Your task to perform on an android device: turn off data saver in the chrome app Image 0: 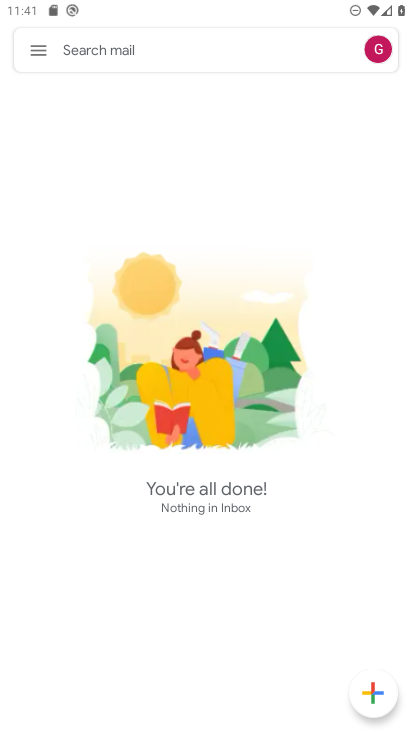
Step 0: press home button
Your task to perform on an android device: turn off data saver in the chrome app Image 1: 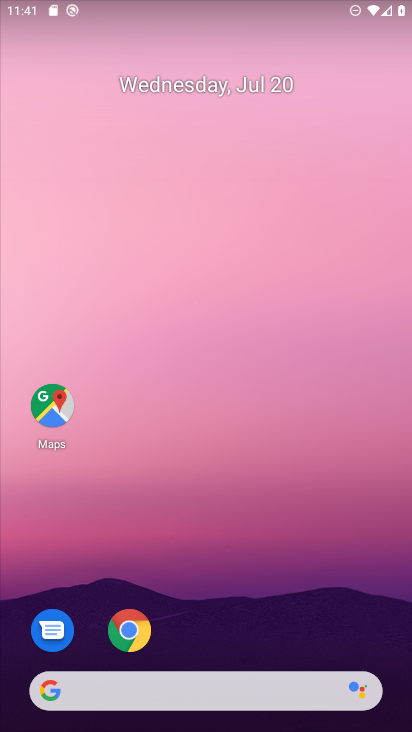
Step 1: drag from (258, 634) to (194, 105)
Your task to perform on an android device: turn off data saver in the chrome app Image 2: 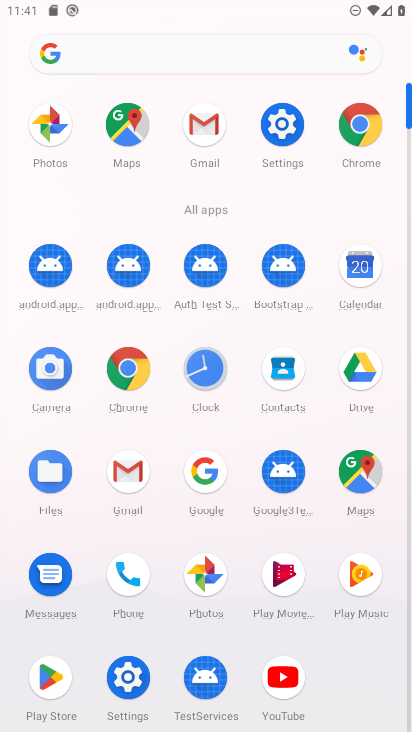
Step 2: click (129, 379)
Your task to perform on an android device: turn off data saver in the chrome app Image 3: 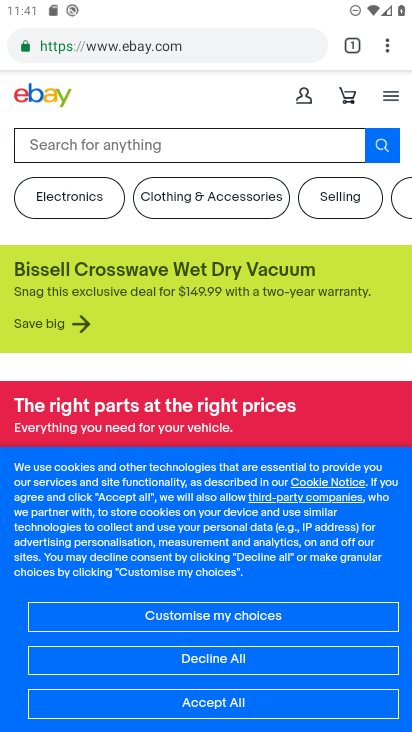
Step 3: click (385, 44)
Your task to perform on an android device: turn off data saver in the chrome app Image 4: 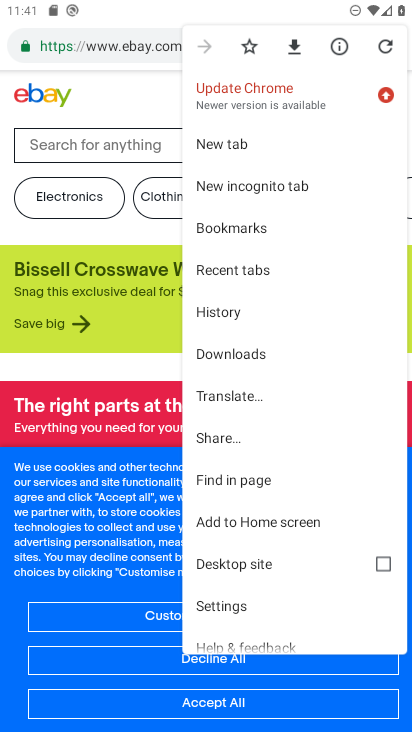
Step 4: click (222, 609)
Your task to perform on an android device: turn off data saver in the chrome app Image 5: 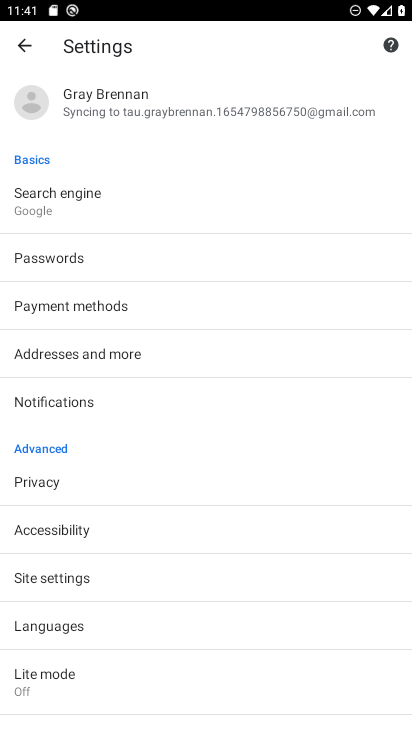
Step 5: click (62, 679)
Your task to perform on an android device: turn off data saver in the chrome app Image 6: 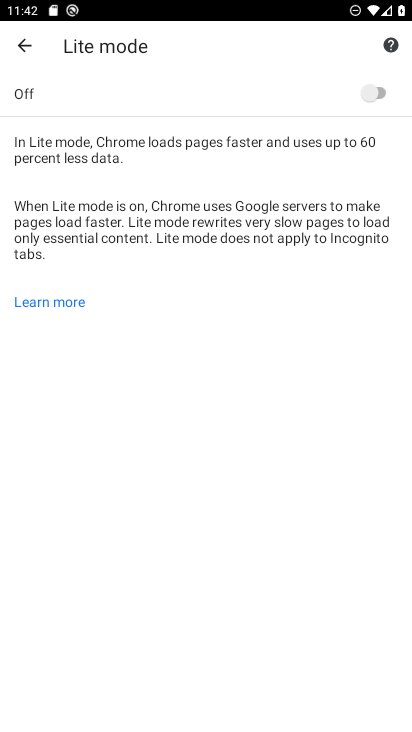
Step 6: task complete